Your task to perform on an android device: uninstall "Facebook Messenger" Image 0: 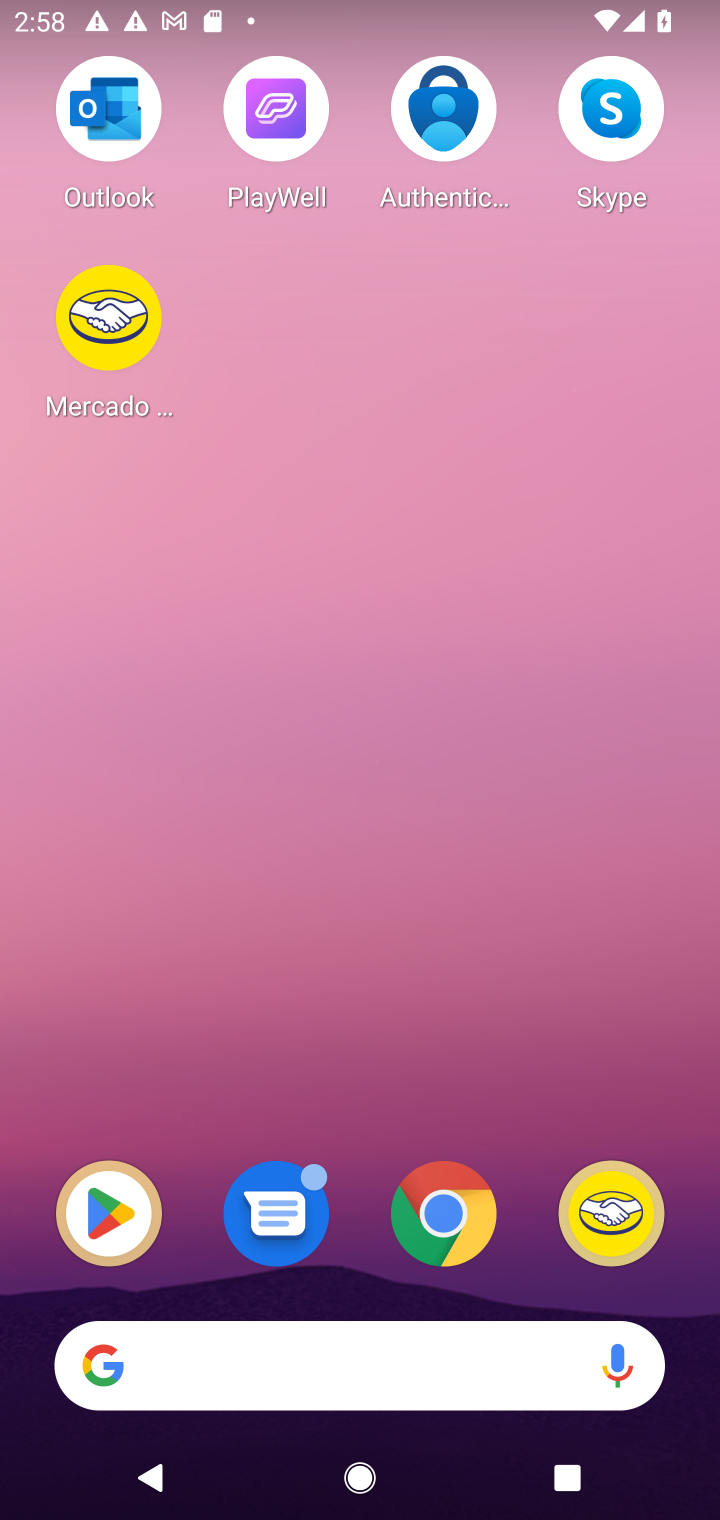
Step 0: drag from (451, 632) to (455, 214)
Your task to perform on an android device: uninstall "Facebook Messenger" Image 1: 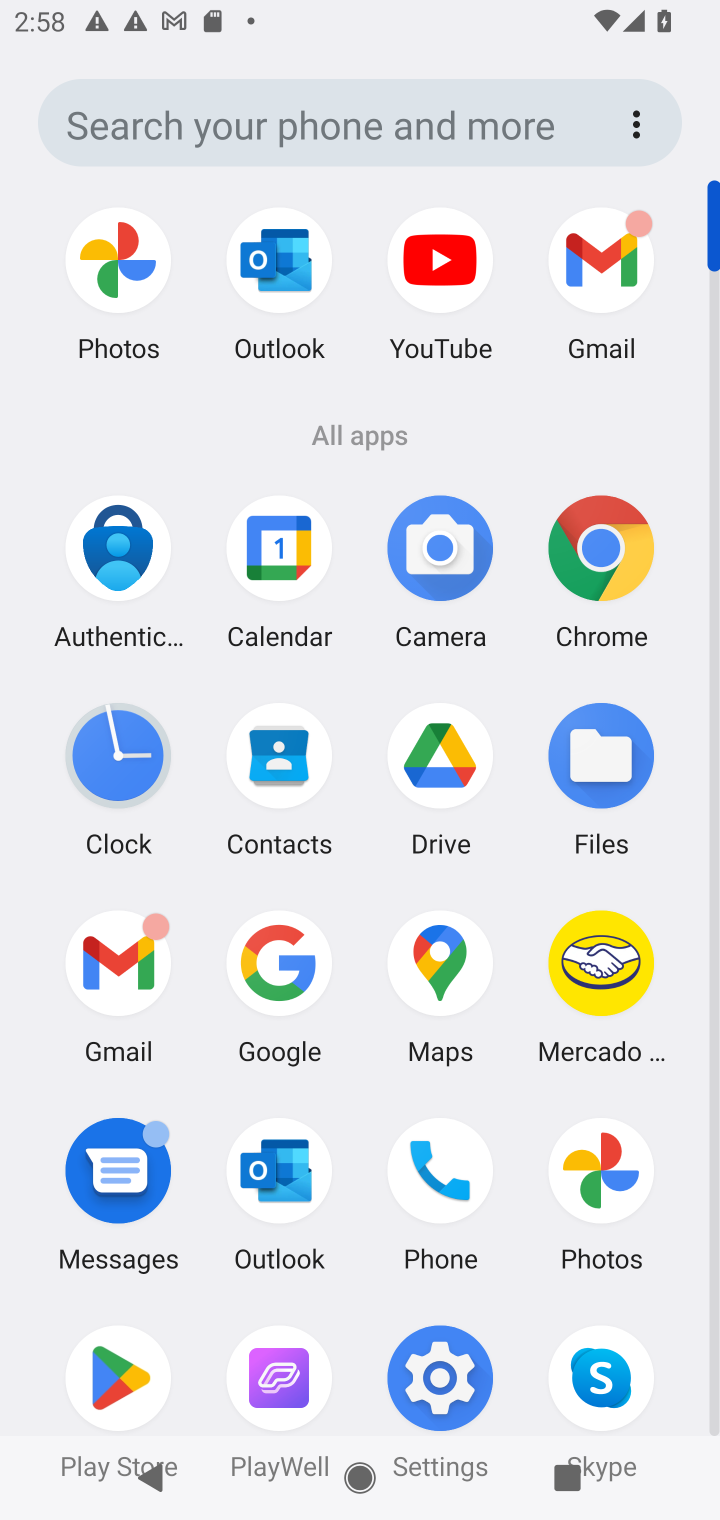
Step 1: click (126, 1402)
Your task to perform on an android device: uninstall "Facebook Messenger" Image 2: 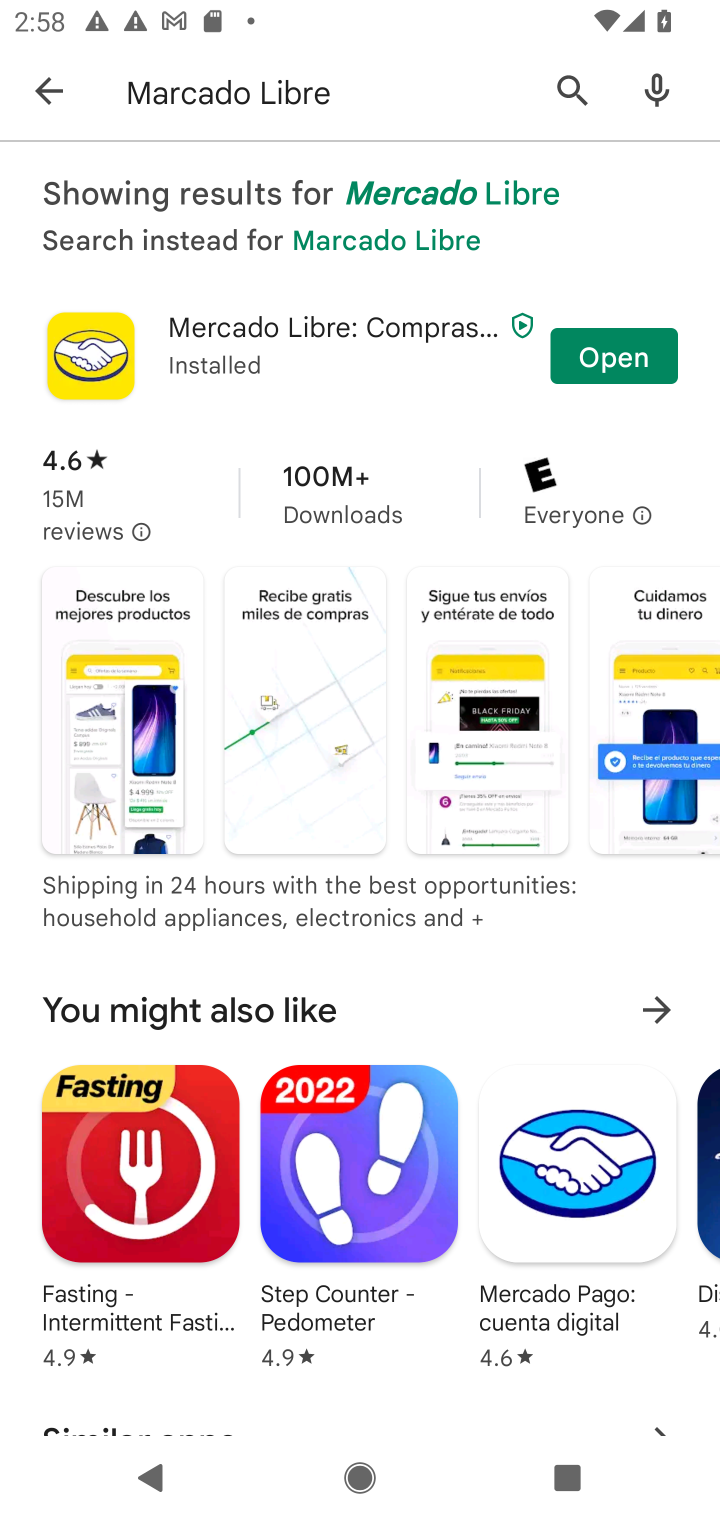
Step 2: click (321, 72)
Your task to perform on an android device: uninstall "Facebook Messenger" Image 3: 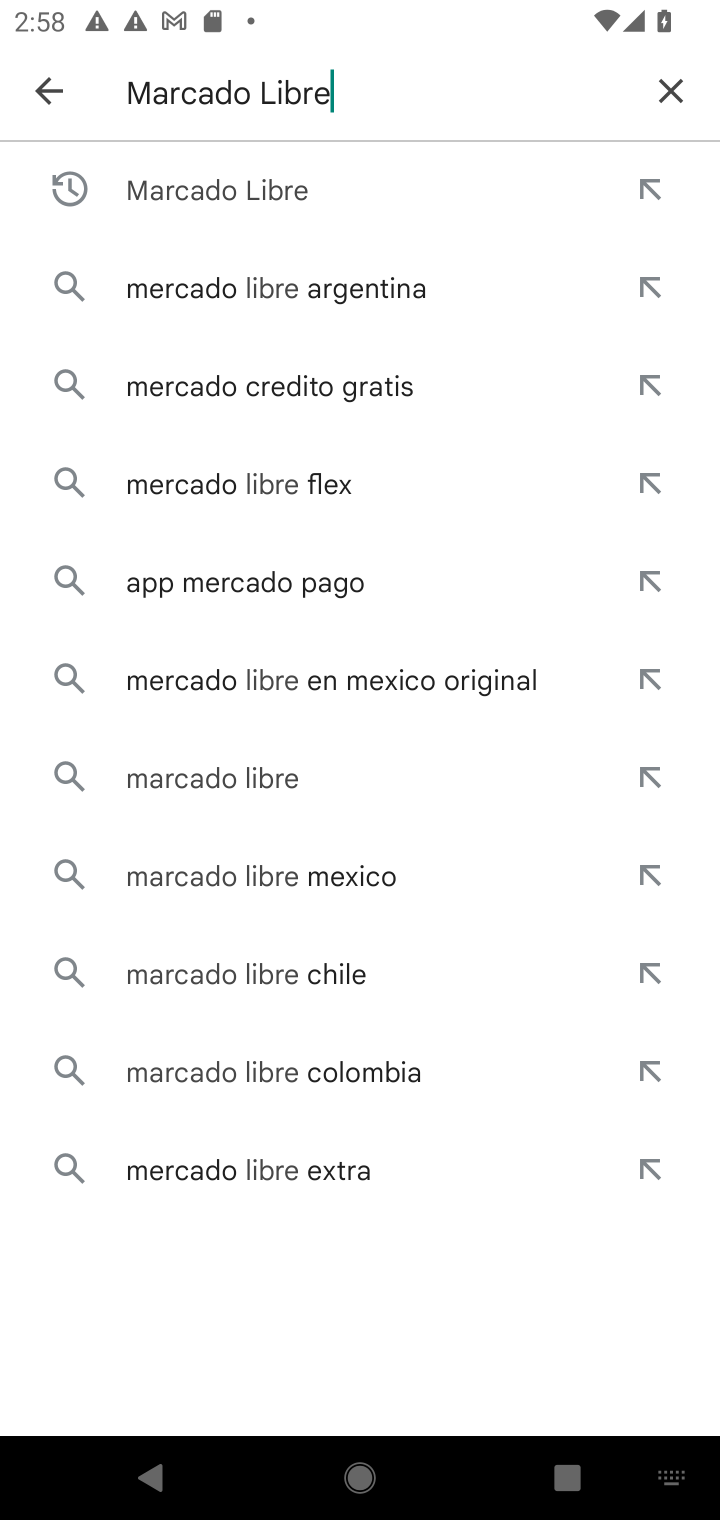
Step 3: click (666, 90)
Your task to perform on an android device: uninstall "Facebook Messenger" Image 4: 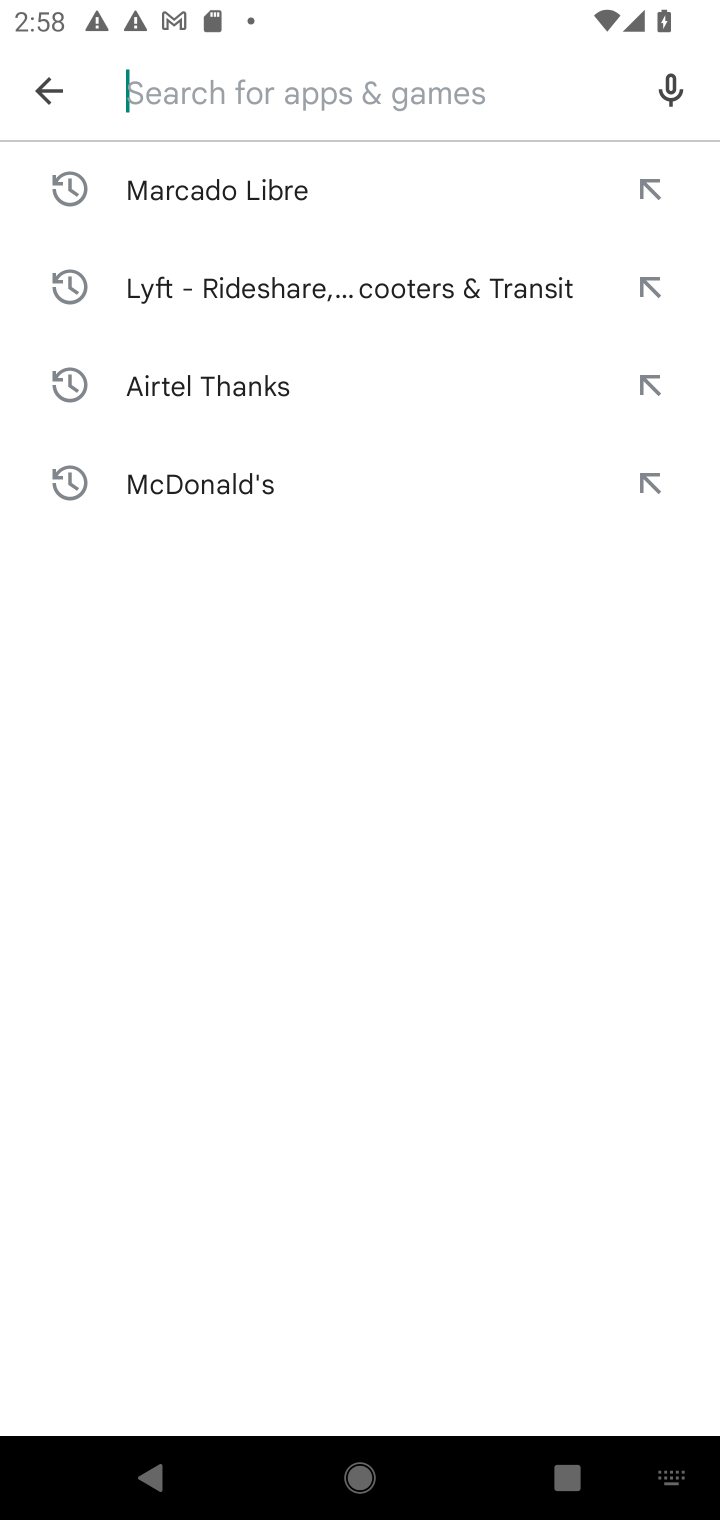
Step 4: type "Facebook Messenger"
Your task to perform on an android device: uninstall "Facebook Messenger" Image 5: 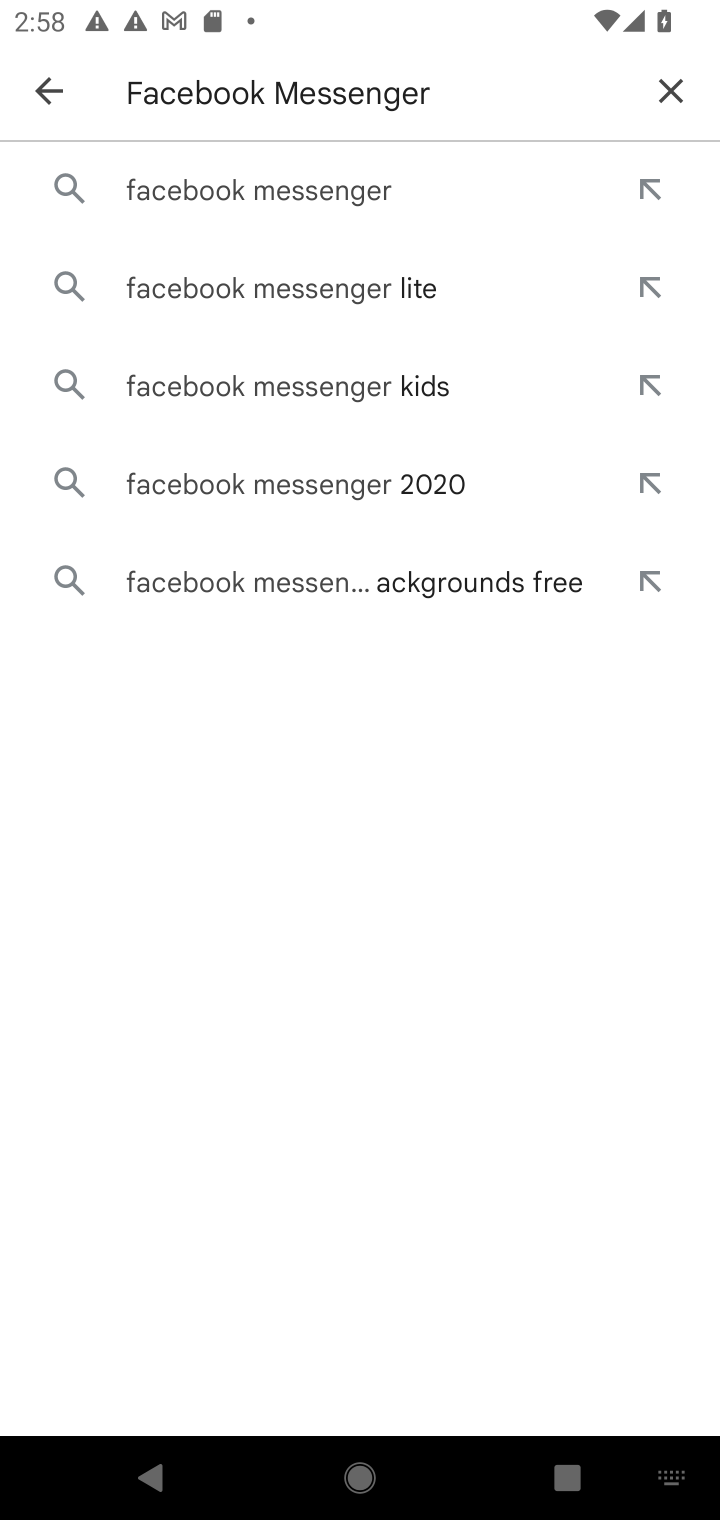
Step 5: press enter
Your task to perform on an android device: uninstall "Facebook Messenger" Image 6: 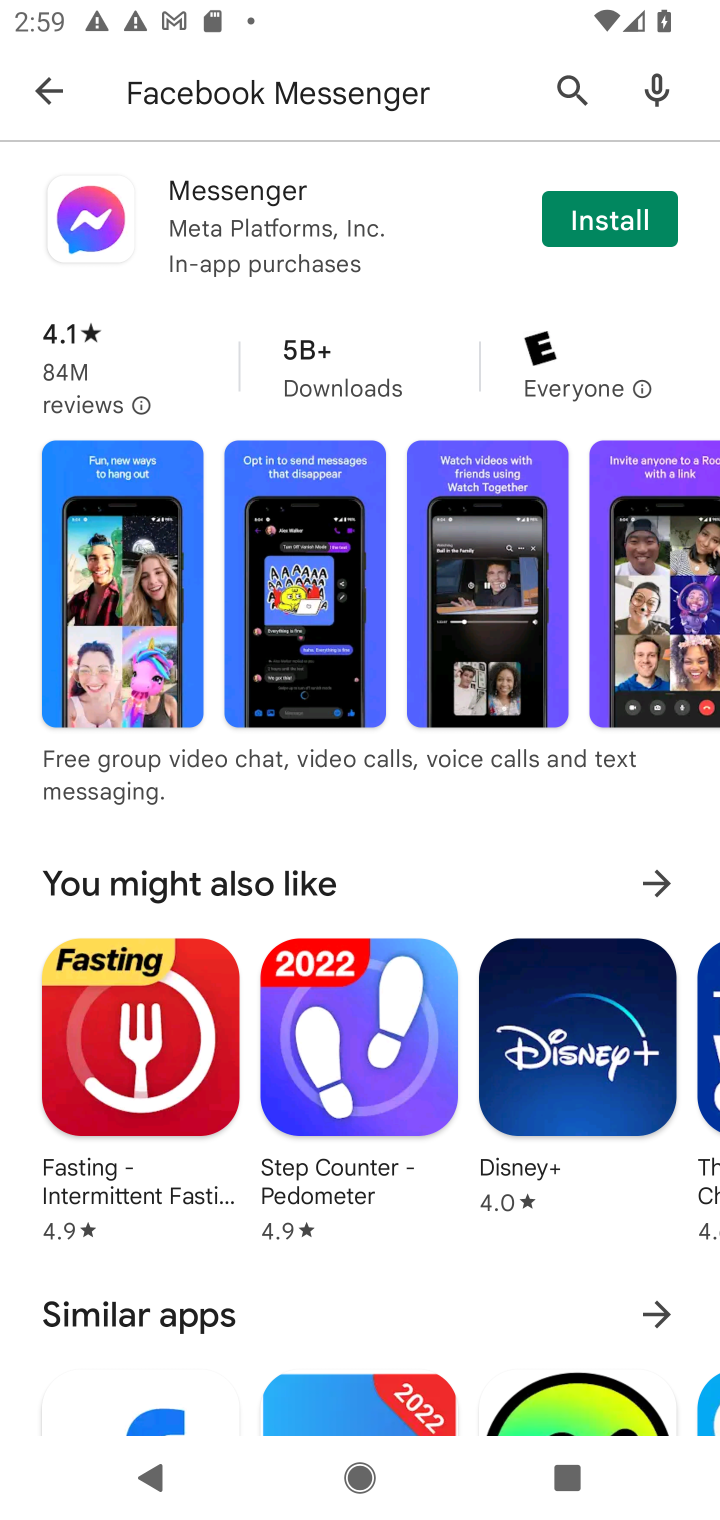
Step 6: task complete